Your task to perform on an android device: Open internet settings Image 0: 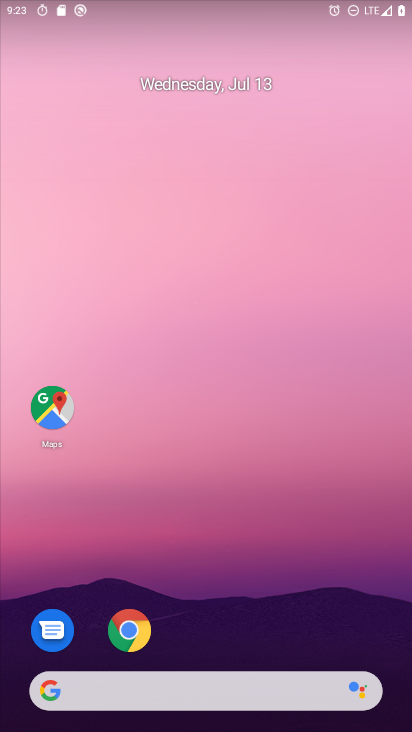
Step 0: drag from (388, 643) to (270, 32)
Your task to perform on an android device: Open internet settings Image 1: 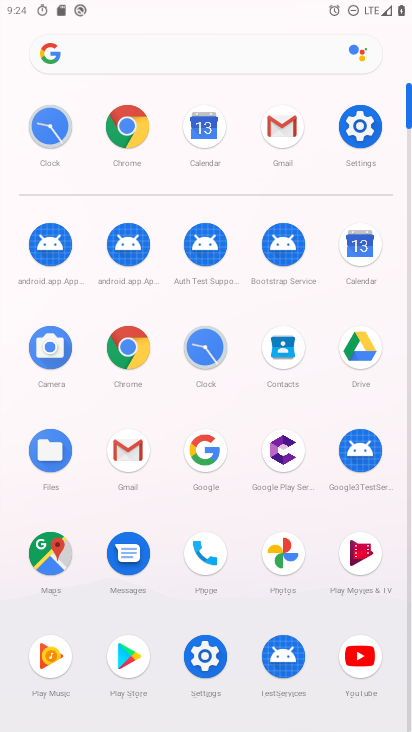
Step 1: click (219, 647)
Your task to perform on an android device: Open internet settings Image 2: 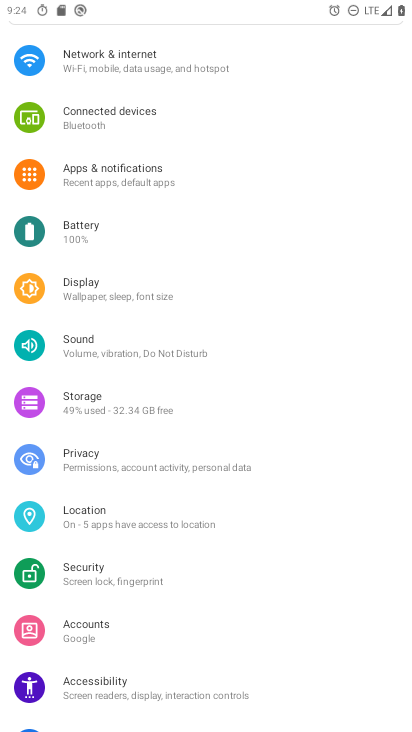
Step 2: click (126, 69)
Your task to perform on an android device: Open internet settings Image 3: 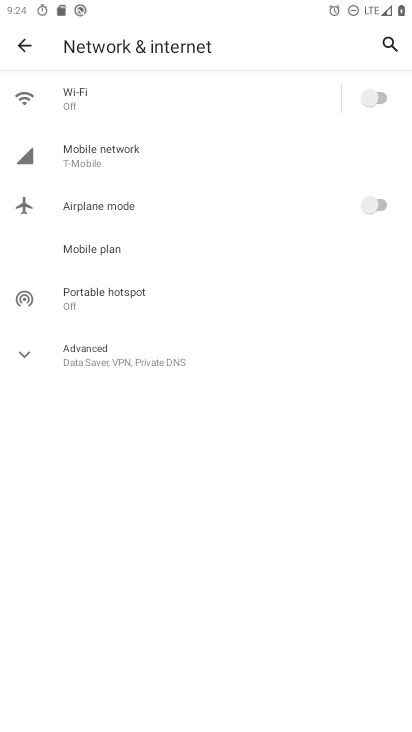
Step 3: task complete